Your task to perform on an android device: Open maps Image 0: 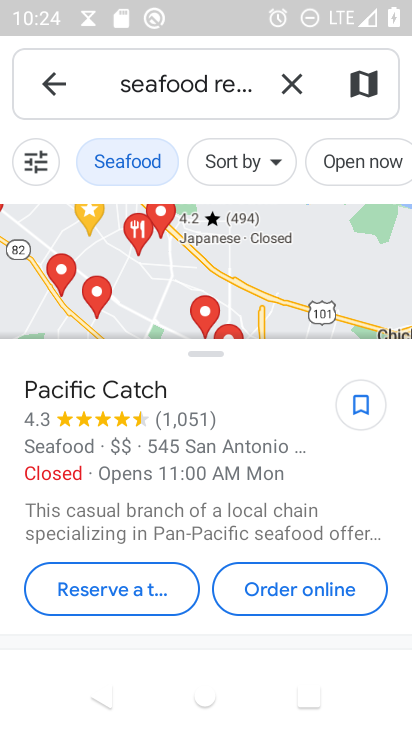
Step 0: click (290, 80)
Your task to perform on an android device: Open maps Image 1: 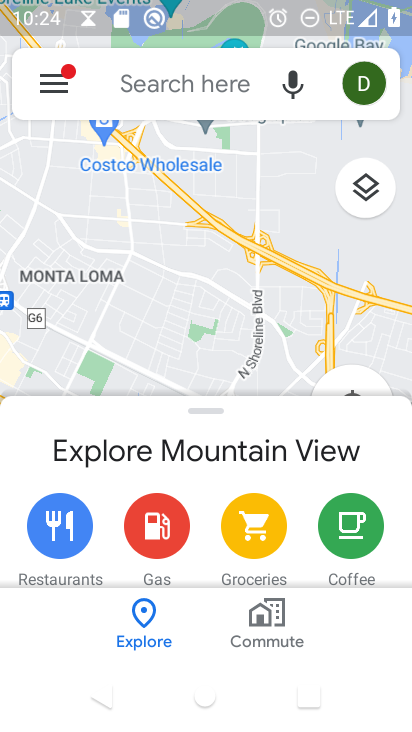
Step 1: task complete